Your task to perform on an android device: Go to eBay Image 0: 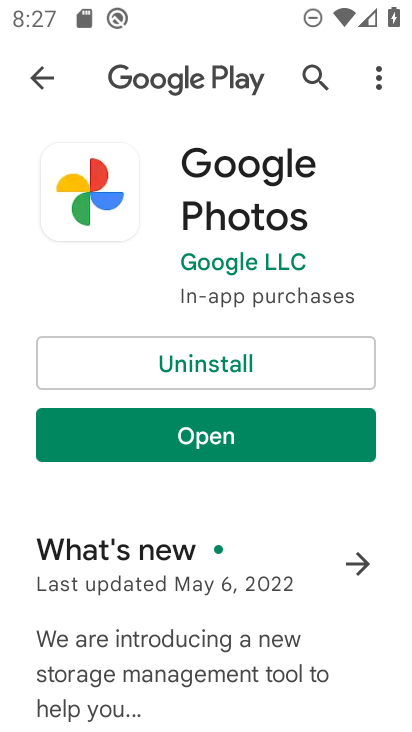
Step 0: press home button
Your task to perform on an android device: Go to eBay Image 1: 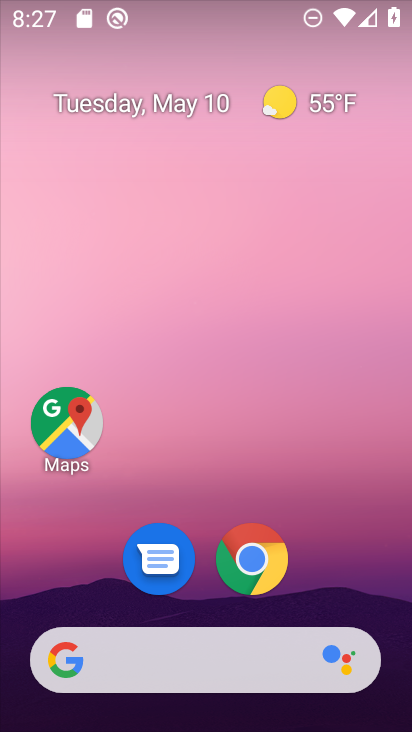
Step 1: drag from (184, 723) to (192, 204)
Your task to perform on an android device: Go to eBay Image 2: 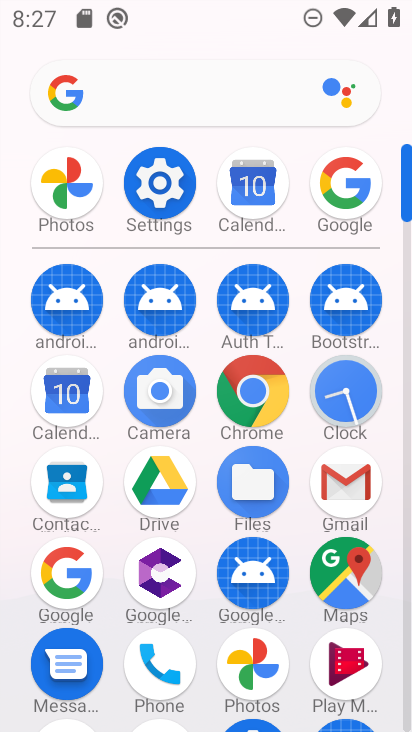
Step 2: drag from (300, 649) to (300, 295)
Your task to perform on an android device: Go to eBay Image 3: 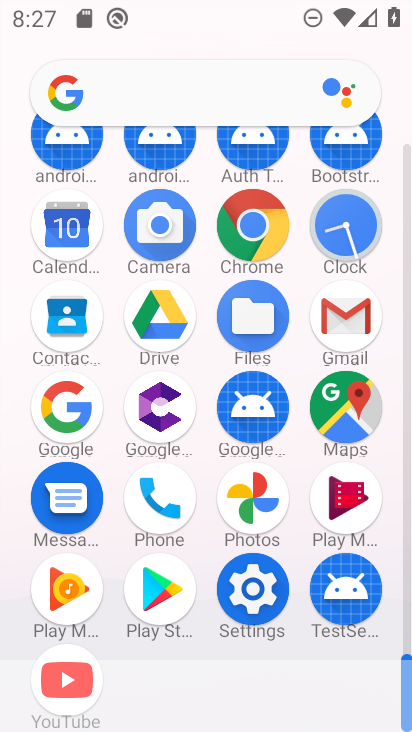
Step 3: click (254, 225)
Your task to perform on an android device: Go to eBay Image 4: 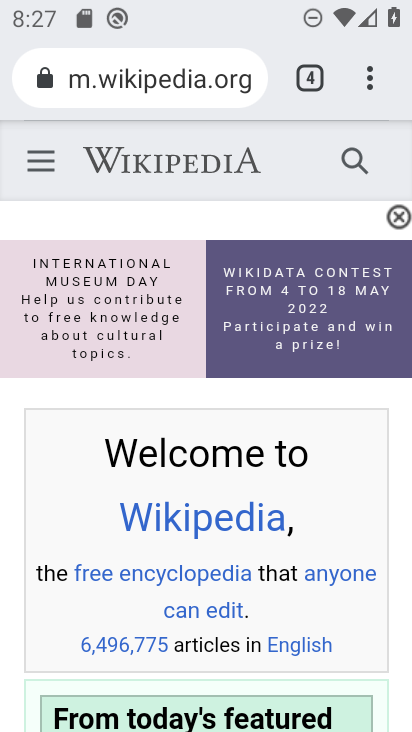
Step 4: click (370, 81)
Your task to perform on an android device: Go to eBay Image 5: 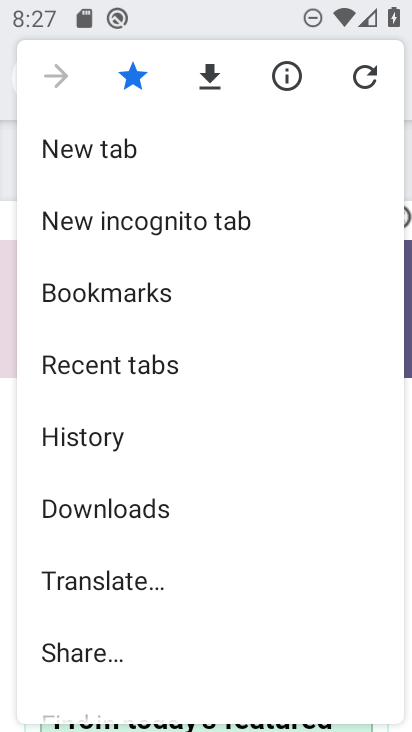
Step 5: click (118, 148)
Your task to perform on an android device: Go to eBay Image 6: 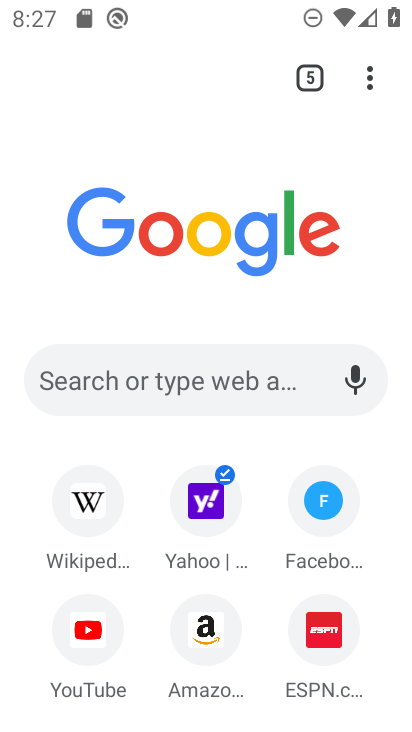
Step 6: click (172, 379)
Your task to perform on an android device: Go to eBay Image 7: 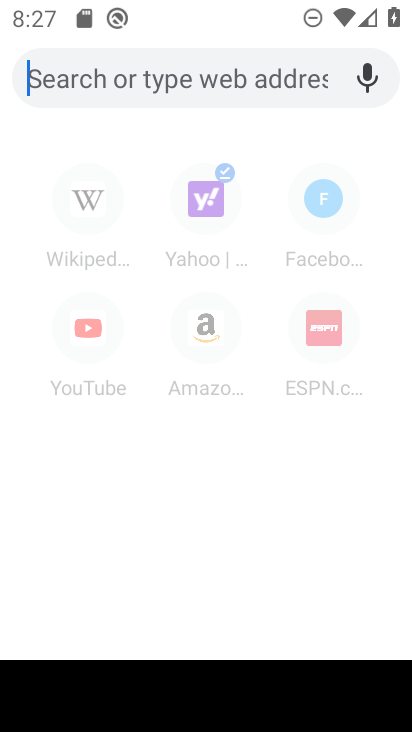
Step 7: type "eBay"
Your task to perform on an android device: Go to eBay Image 8: 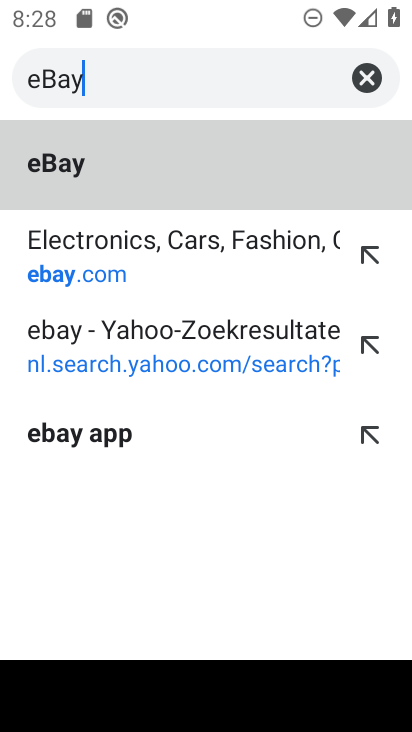
Step 8: click (92, 163)
Your task to perform on an android device: Go to eBay Image 9: 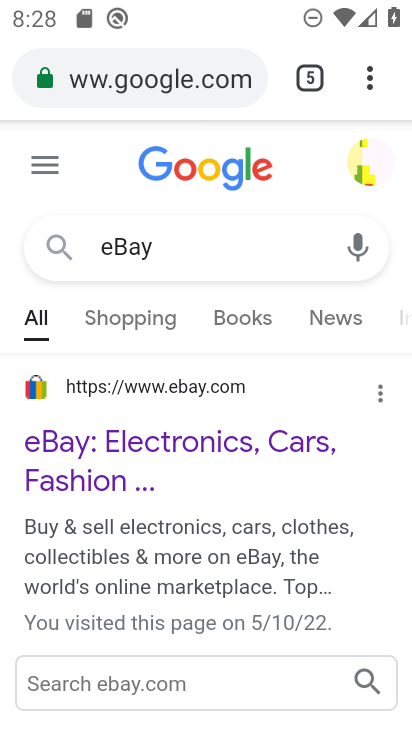
Step 9: click (77, 442)
Your task to perform on an android device: Go to eBay Image 10: 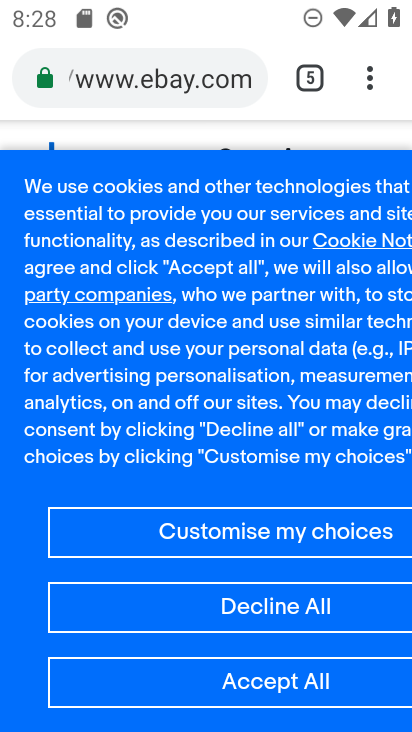
Step 10: task complete